Your task to perform on an android device: Set the phone to "Do not disturb". Image 0: 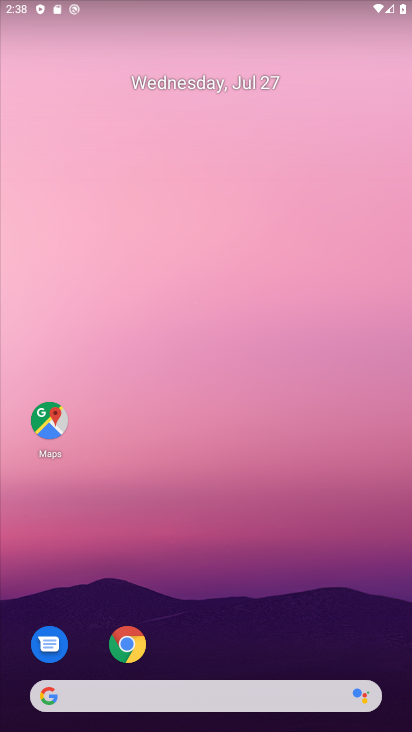
Step 0: drag from (251, 595) to (253, 284)
Your task to perform on an android device: Set the phone to "Do not disturb". Image 1: 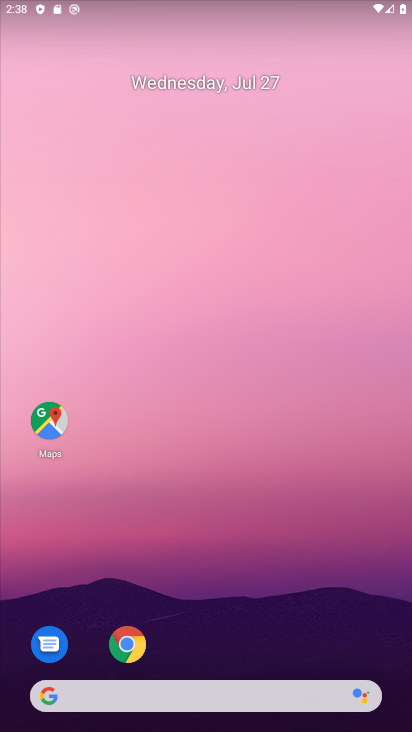
Step 1: drag from (225, 615) to (275, 100)
Your task to perform on an android device: Set the phone to "Do not disturb". Image 2: 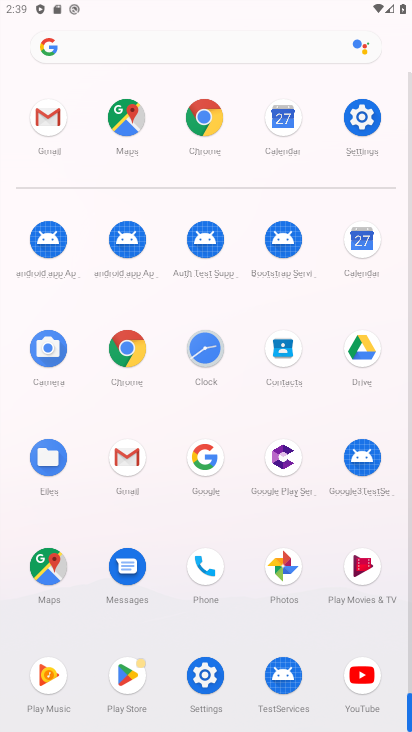
Step 2: click (366, 134)
Your task to perform on an android device: Set the phone to "Do not disturb". Image 3: 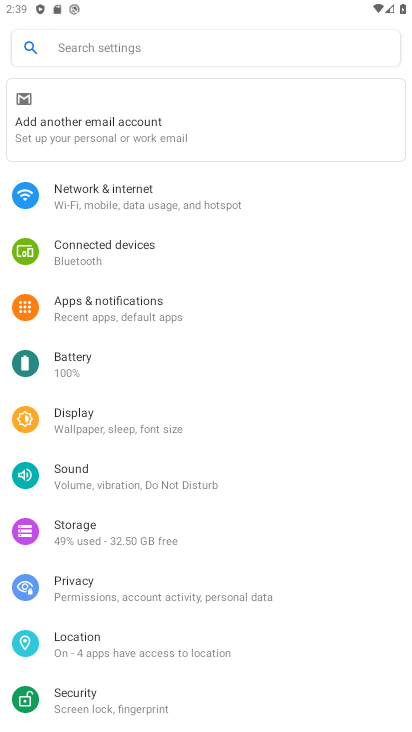
Step 3: click (91, 479)
Your task to perform on an android device: Set the phone to "Do not disturb". Image 4: 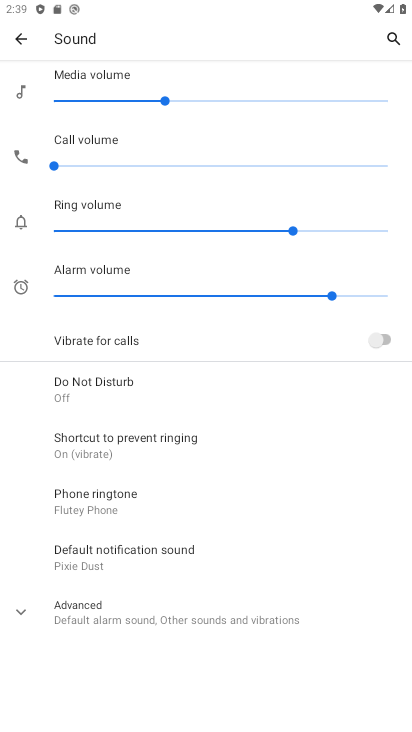
Step 4: click (111, 395)
Your task to perform on an android device: Set the phone to "Do not disturb". Image 5: 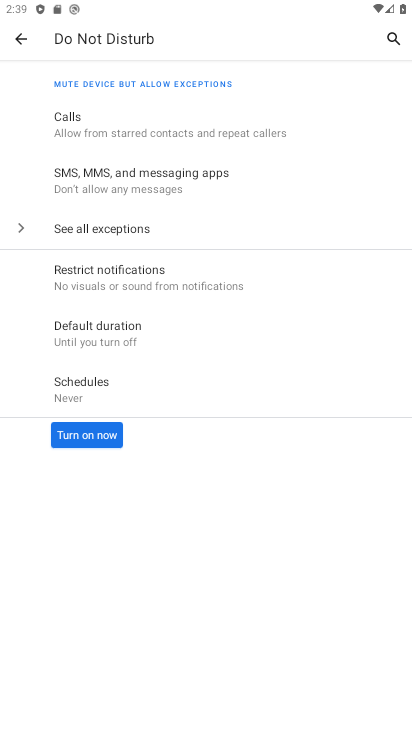
Step 5: click (93, 445)
Your task to perform on an android device: Set the phone to "Do not disturb". Image 6: 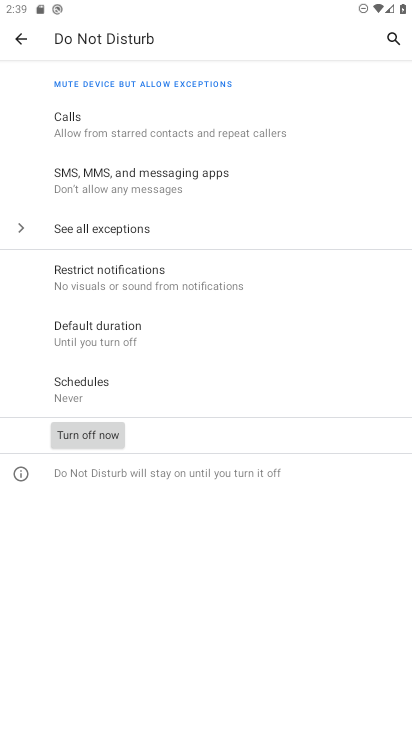
Step 6: task complete